Your task to perform on an android device: make emails show in primary in the gmail app Image 0: 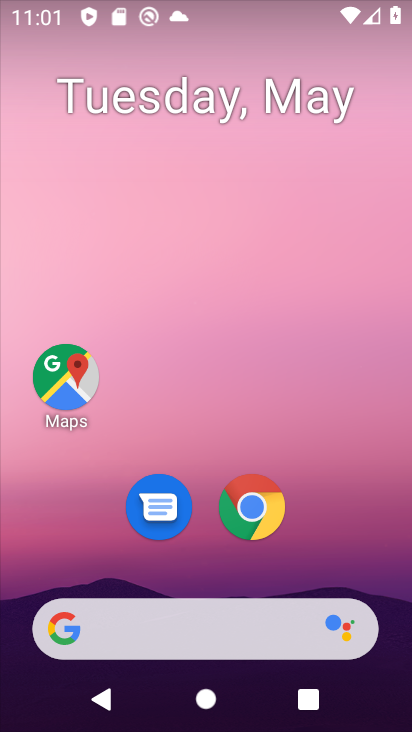
Step 0: drag from (263, 710) to (162, 81)
Your task to perform on an android device: make emails show in primary in the gmail app Image 1: 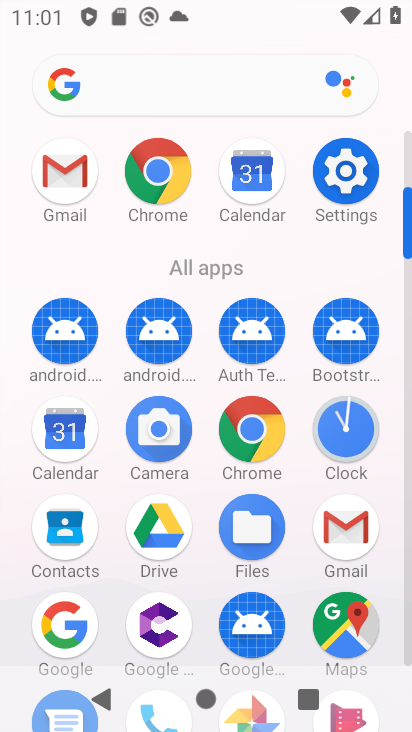
Step 1: click (335, 520)
Your task to perform on an android device: make emails show in primary in the gmail app Image 2: 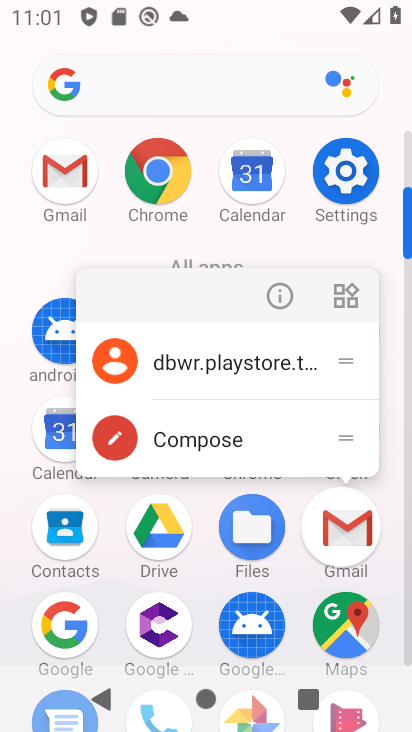
Step 2: click (331, 525)
Your task to perform on an android device: make emails show in primary in the gmail app Image 3: 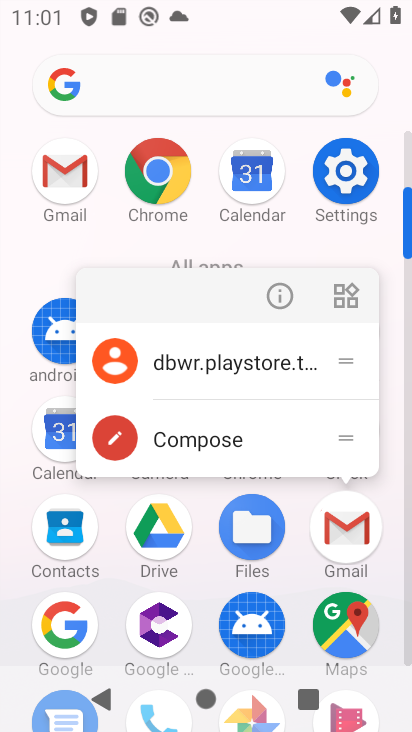
Step 3: click (329, 525)
Your task to perform on an android device: make emails show in primary in the gmail app Image 4: 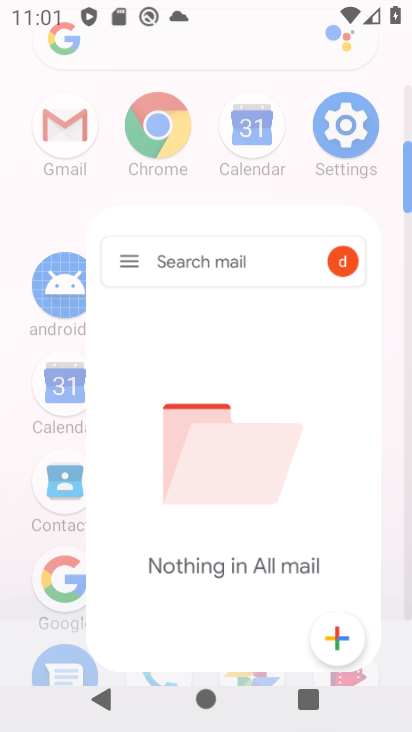
Step 4: click (331, 510)
Your task to perform on an android device: make emails show in primary in the gmail app Image 5: 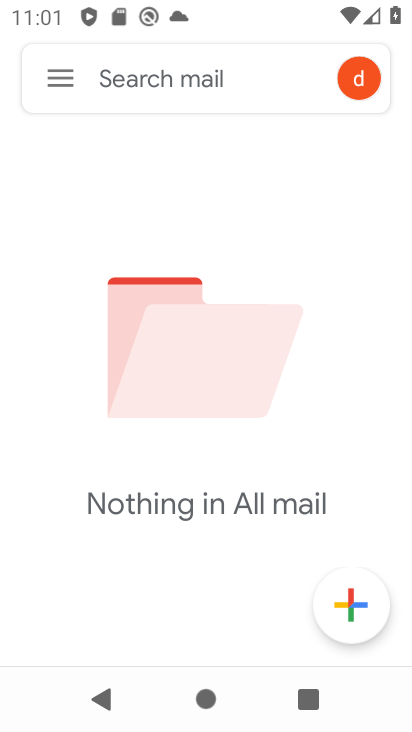
Step 5: click (337, 514)
Your task to perform on an android device: make emails show in primary in the gmail app Image 6: 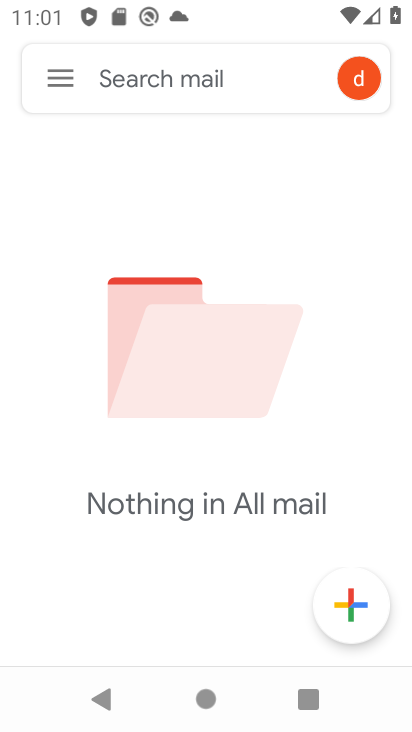
Step 6: click (66, 67)
Your task to perform on an android device: make emails show in primary in the gmail app Image 7: 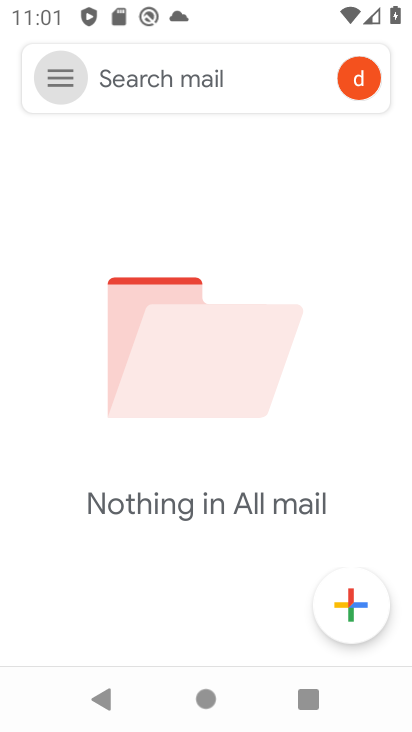
Step 7: click (65, 67)
Your task to perform on an android device: make emails show in primary in the gmail app Image 8: 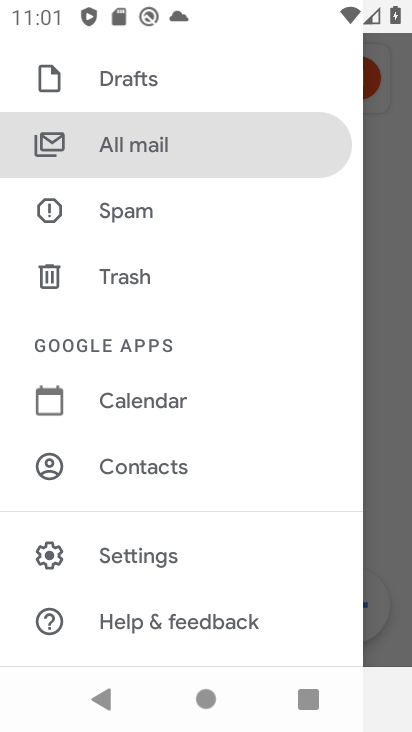
Step 8: click (132, 547)
Your task to perform on an android device: make emails show in primary in the gmail app Image 9: 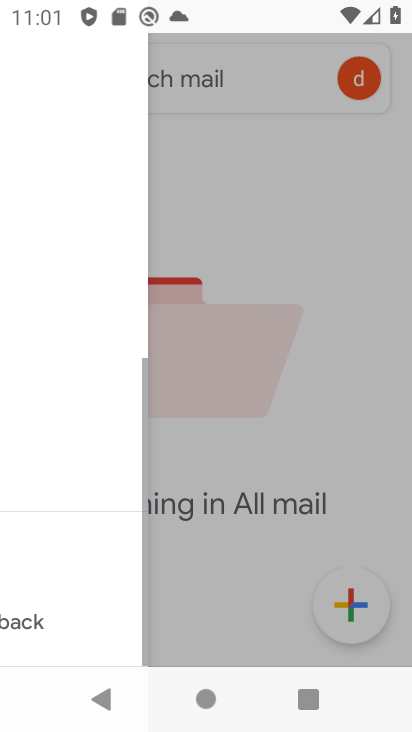
Step 9: click (132, 547)
Your task to perform on an android device: make emails show in primary in the gmail app Image 10: 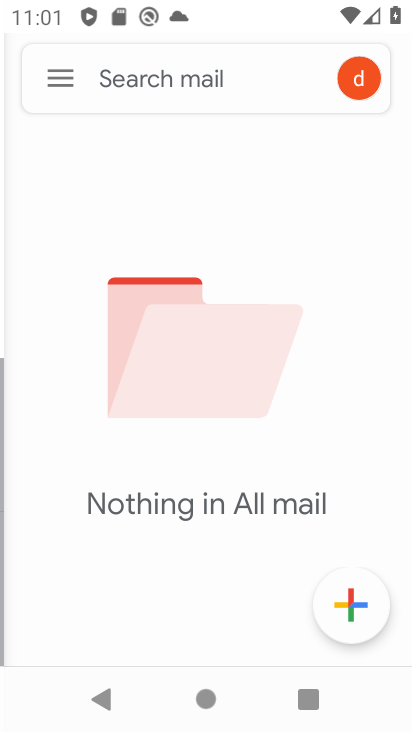
Step 10: click (127, 551)
Your task to perform on an android device: make emails show in primary in the gmail app Image 11: 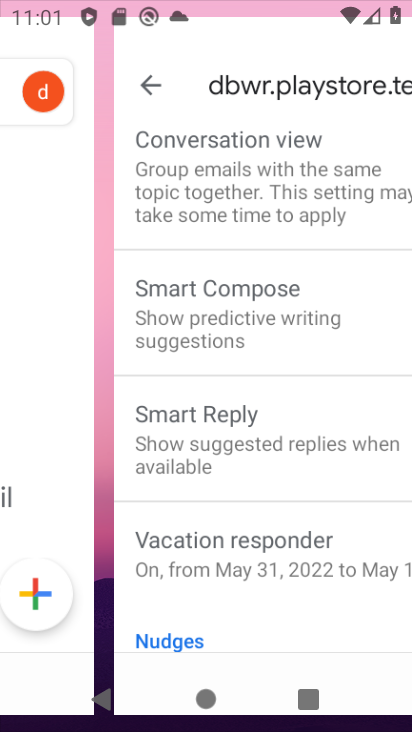
Step 11: click (127, 553)
Your task to perform on an android device: make emails show in primary in the gmail app Image 12: 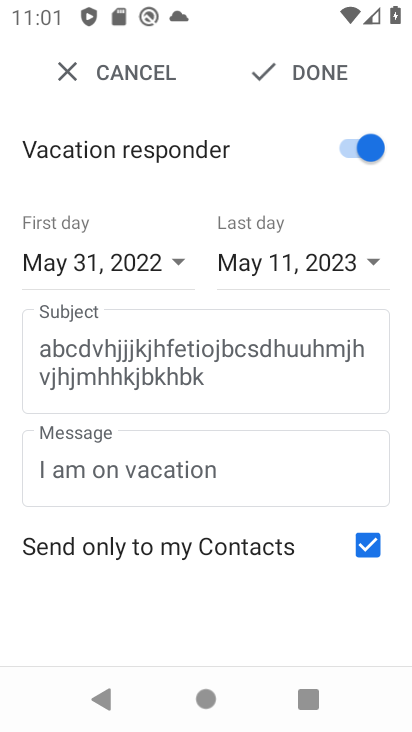
Step 12: click (61, 68)
Your task to perform on an android device: make emails show in primary in the gmail app Image 13: 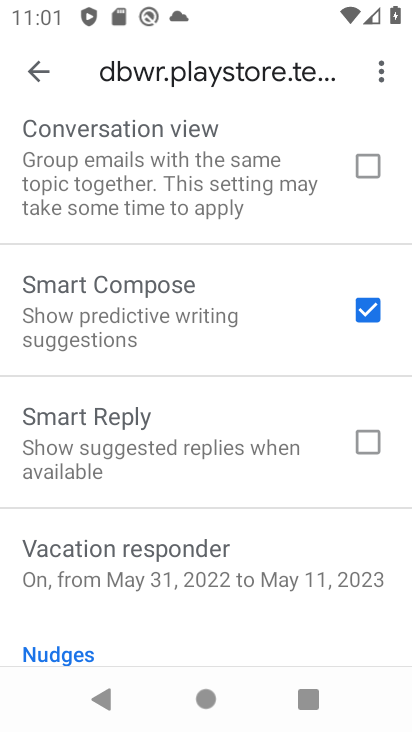
Step 13: drag from (97, 131) to (182, 474)
Your task to perform on an android device: make emails show in primary in the gmail app Image 14: 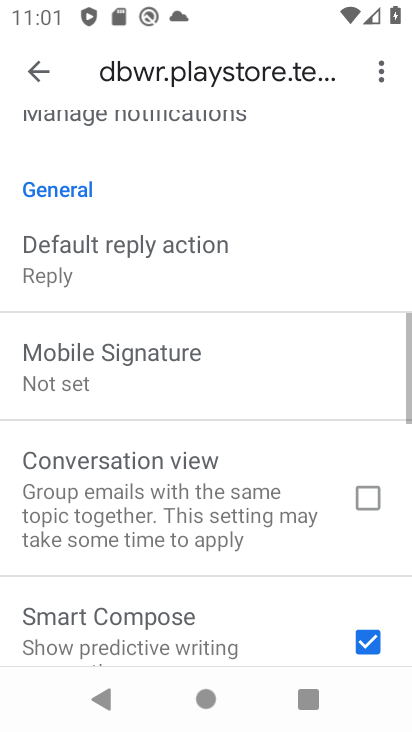
Step 14: drag from (149, 282) to (195, 611)
Your task to perform on an android device: make emails show in primary in the gmail app Image 15: 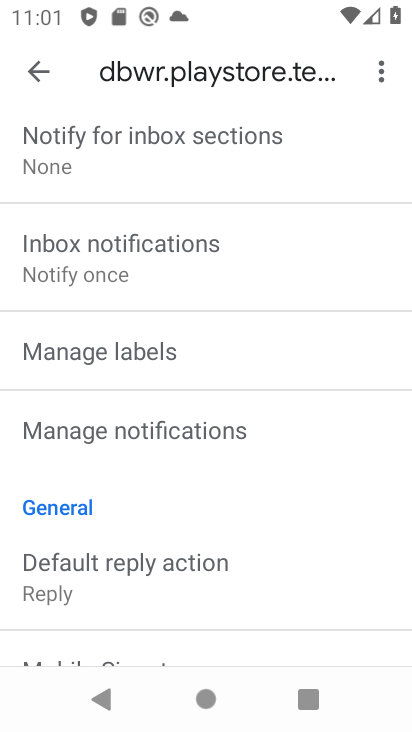
Step 15: drag from (129, 307) to (182, 624)
Your task to perform on an android device: make emails show in primary in the gmail app Image 16: 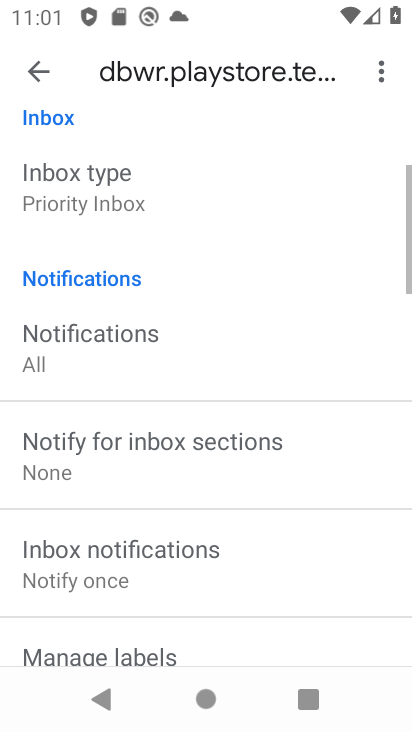
Step 16: drag from (170, 266) to (211, 571)
Your task to perform on an android device: make emails show in primary in the gmail app Image 17: 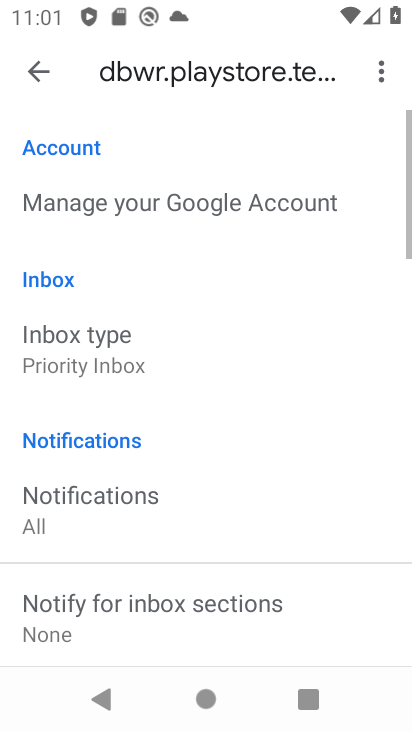
Step 17: drag from (102, 522) to (102, 154)
Your task to perform on an android device: make emails show in primary in the gmail app Image 18: 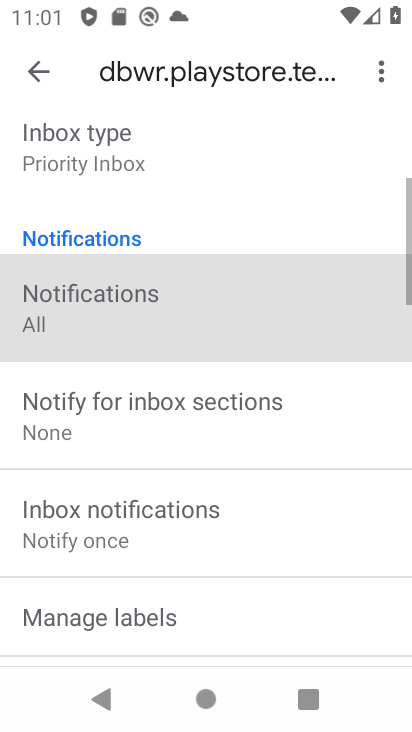
Step 18: drag from (211, 527) to (199, 105)
Your task to perform on an android device: make emails show in primary in the gmail app Image 19: 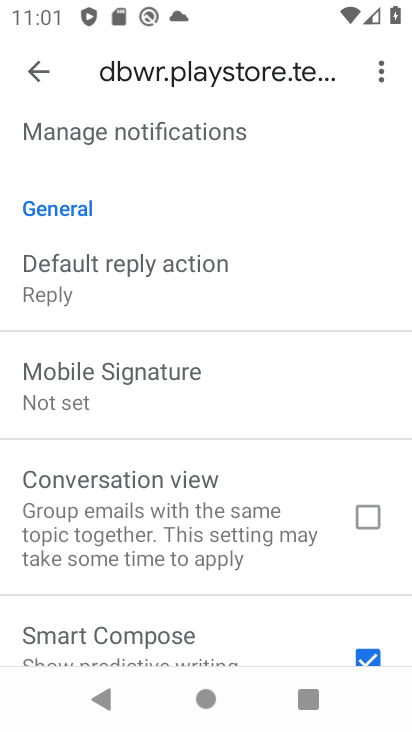
Step 19: drag from (188, 498) to (188, 187)
Your task to perform on an android device: make emails show in primary in the gmail app Image 20: 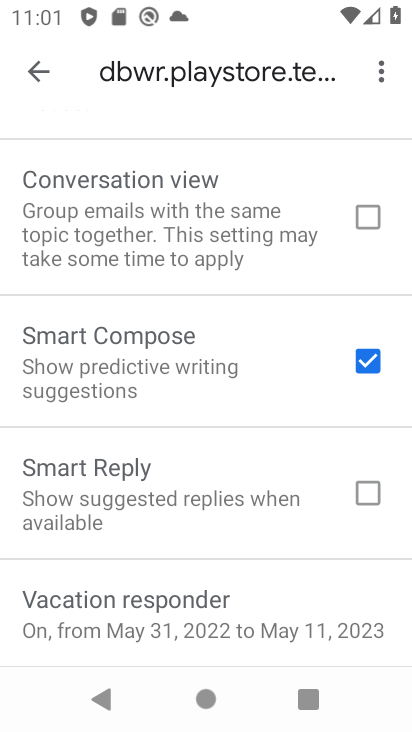
Step 20: drag from (134, 239) to (164, 519)
Your task to perform on an android device: make emails show in primary in the gmail app Image 21: 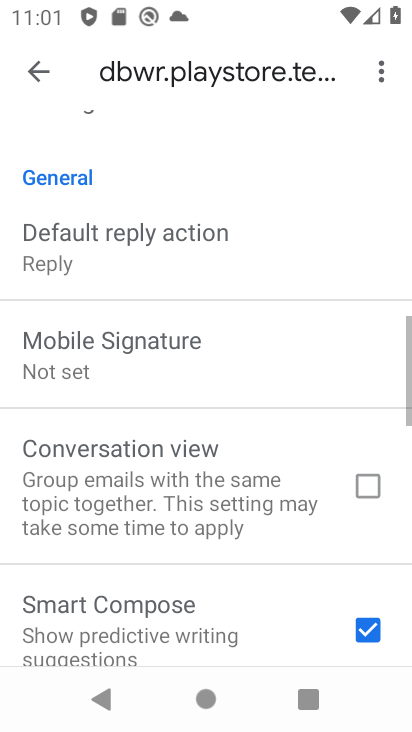
Step 21: drag from (136, 287) to (165, 689)
Your task to perform on an android device: make emails show in primary in the gmail app Image 22: 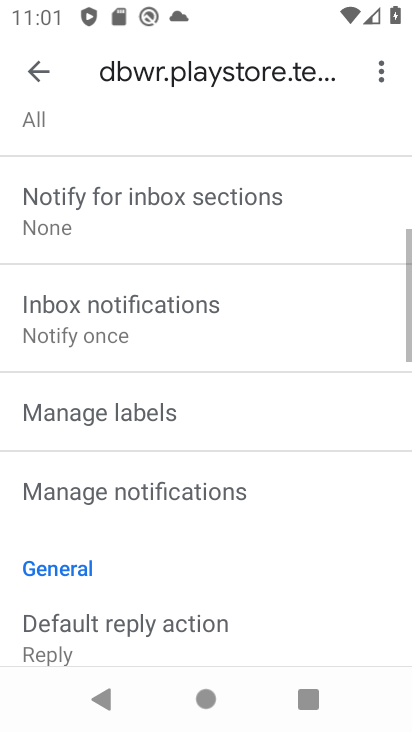
Step 22: drag from (154, 339) to (179, 575)
Your task to perform on an android device: make emails show in primary in the gmail app Image 23: 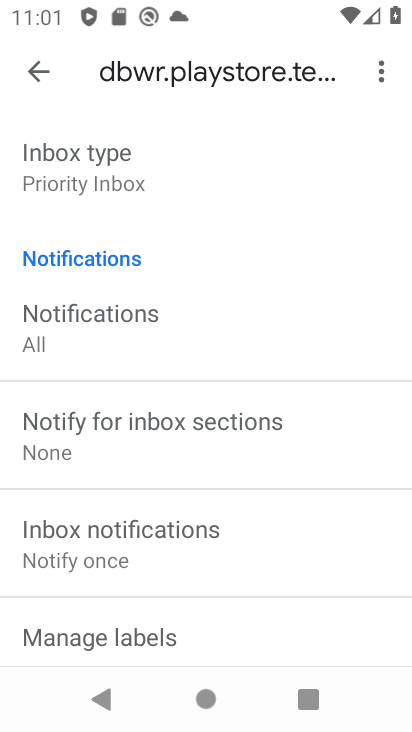
Step 23: click (77, 176)
Your task to perform on an android device: make emails show in primary in the gmail app Image 24: 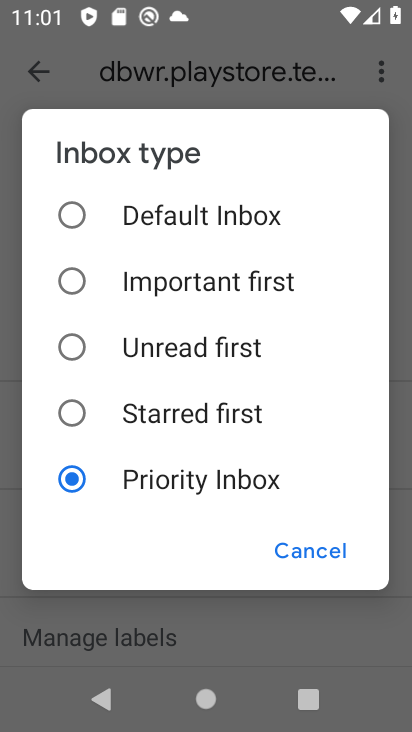
Step 24: click (65, 216)
Your task to perform on an android device: make emails show in primary in the gmail app Image 25: 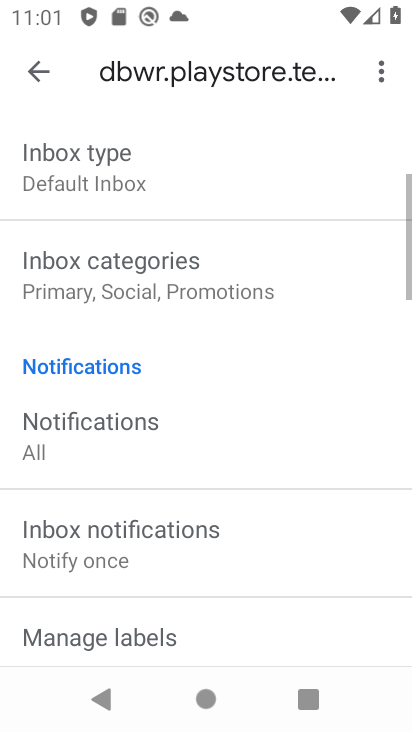
Step 25: click (161, 269)
Your task to perform on an android device: make emails show in primary in the gmail app Image 26: 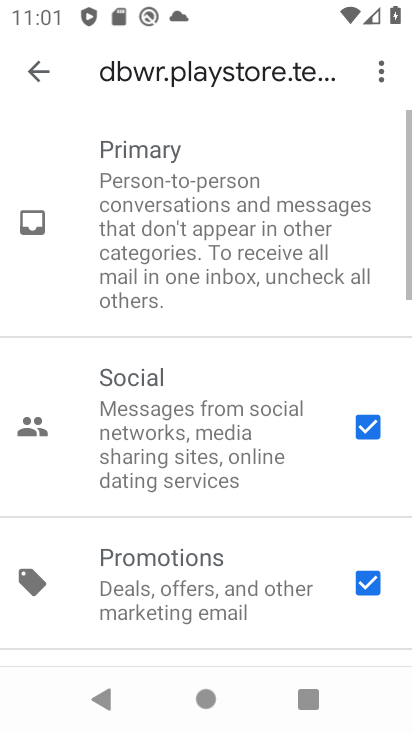
Step 26: click (127, 209)
Your task to perform on an android device: make emails show in primary in the gmail app Image 27: 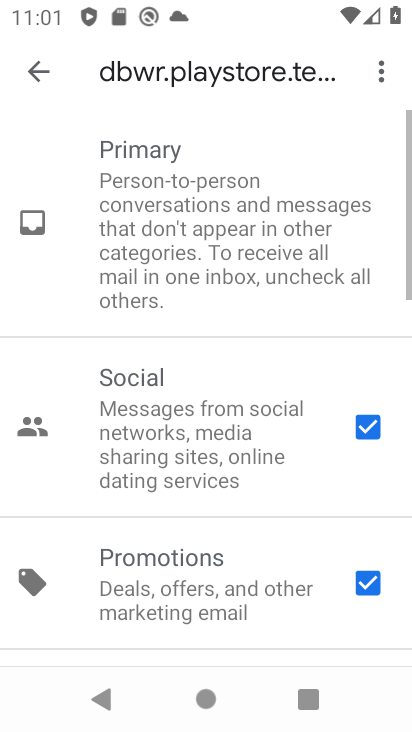
Step 27: task complete